Your task to perform on an android device: toggle notifications settings in the gmail app Image 0: 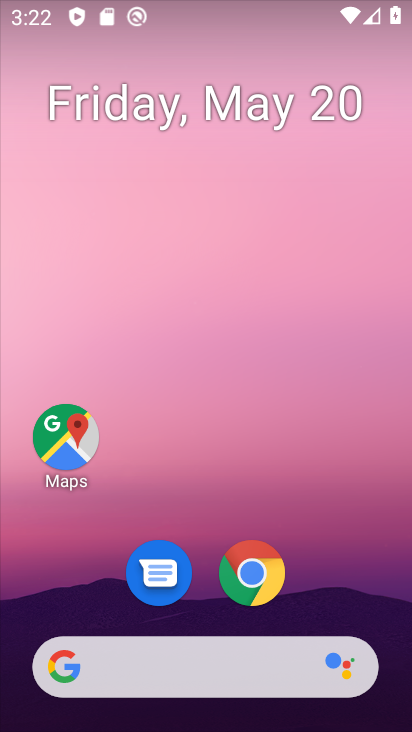
Step 0: drag from (222, 458) to (217, 144)
Your task to perform on an android device: toggle notifications settings in the gmail app Image 1: 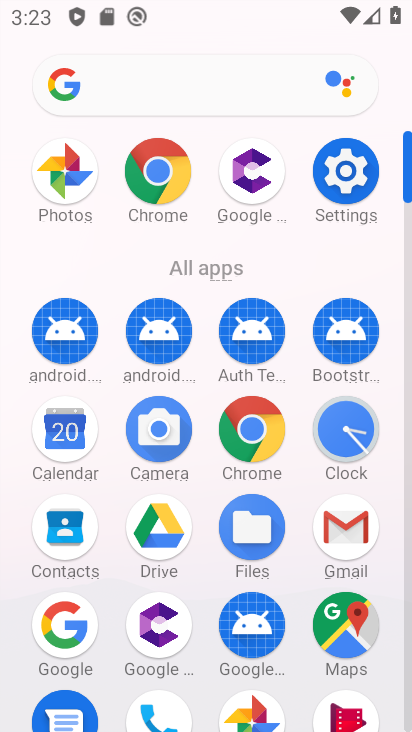
Step 1: click (338, 536)
Your task to perform on an android device: toggle notifications settings in the gmail app Image 2: 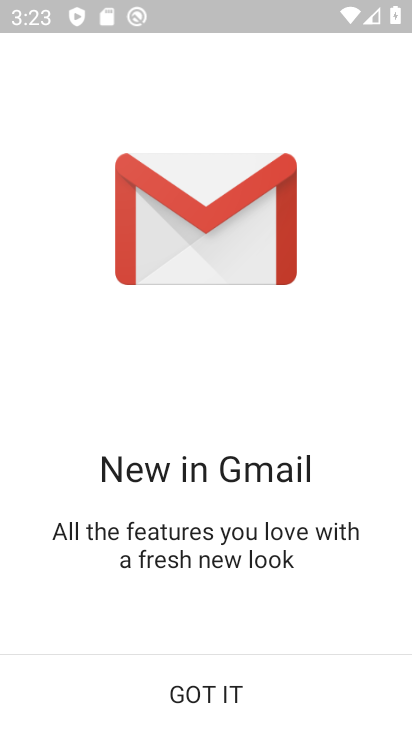
Step 2: click (215, 708)
Your task to perform on an android device: toggle notifications settings in the gmail app Image 3: 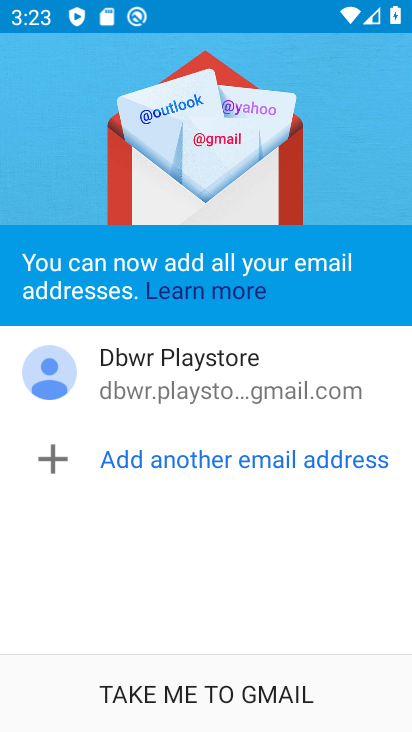
Step 3: click (226, 690)
Your task to perform on an android device: toggle notifications settings in the gmail app Image 4: 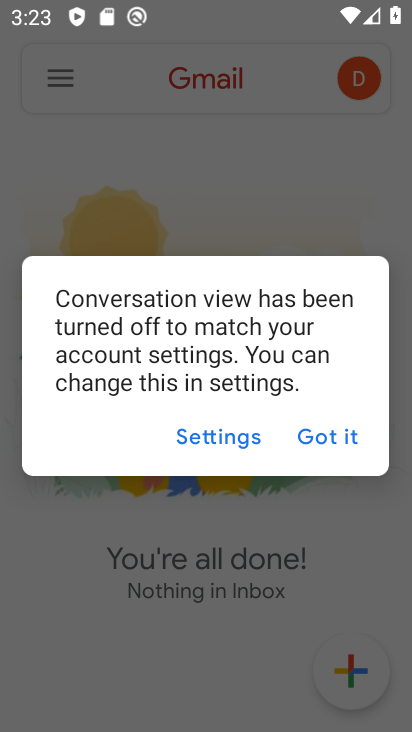
Step 4: click (339, 441)
Your task to perform on an android device: toggle notifications settings in the gmail app Image 5: 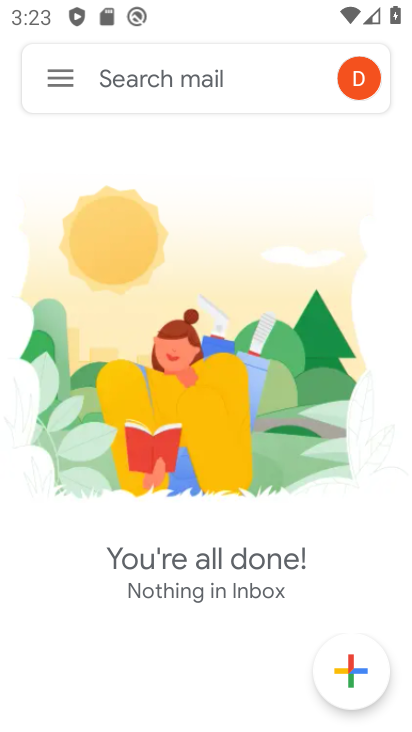
Step 5: click (51, 70)
Your task to perform on an android device: toggle notifications settings in the gmail app Image 6: 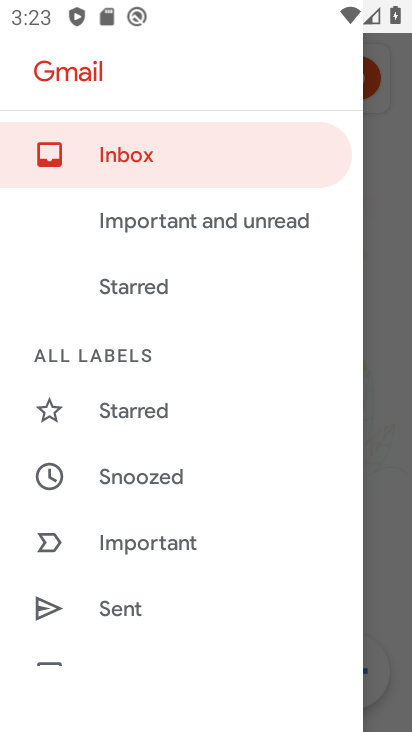
Step 6: drag from (181, 641) to (228, 292)
Your task to perform on an android device: toggle notifications settings in the gmail app Image 7: 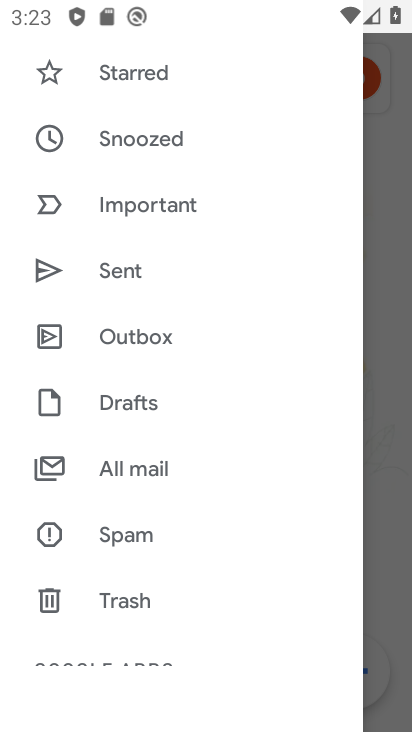
Step 7: drag from (222, 663) to (262, 322)
Your task to perform on an android device: toggle notifications settings in the gmail app Image 8: 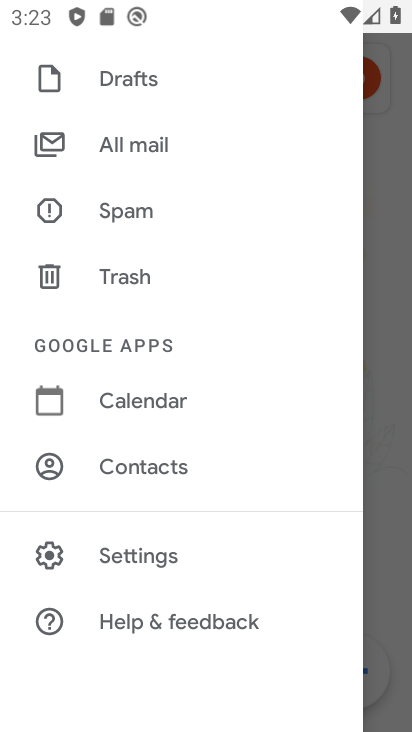
Step 8: click (134, 549)
Your task to perform on an android device: toggle notifications settings in the gmail app Image 9: 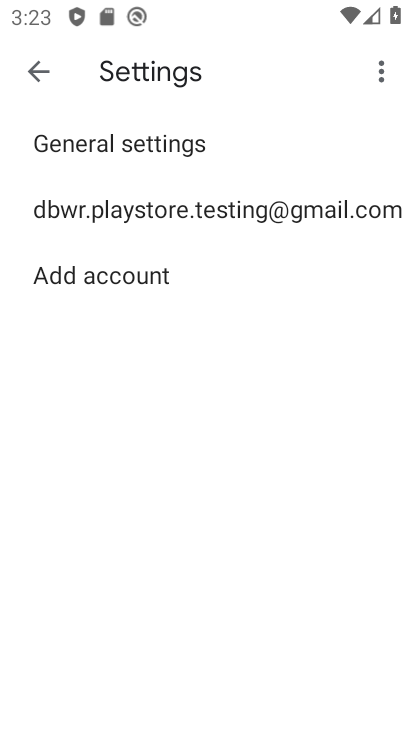
Step 9: click (193, 196)
Your task to perform on an android device: toggle notifications settings in the gmail app Image 10: 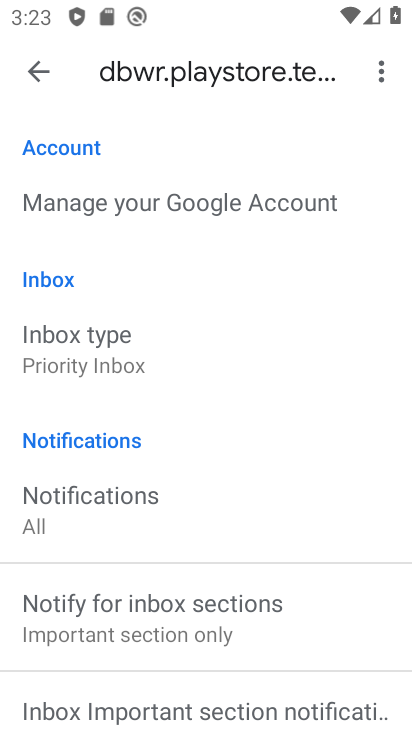
Step 10: click (136, 499)
Your task to perform on an android device: toggle notifications settings in the gmail app Image 11: 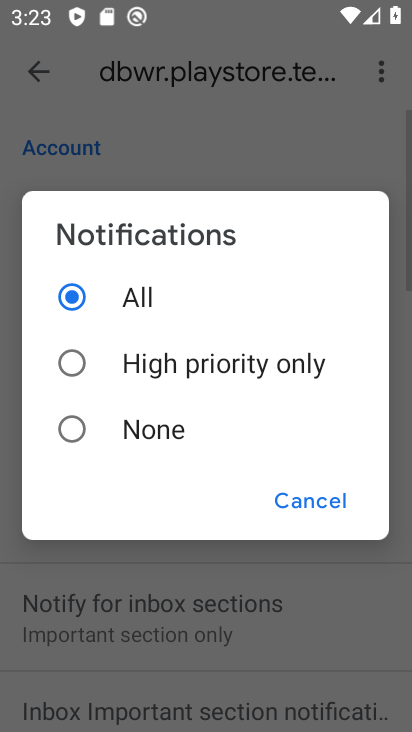
Step 11: click (145, 424)
Your task to perform on an android device: toggle notifications settings in the gmail app Image 12: 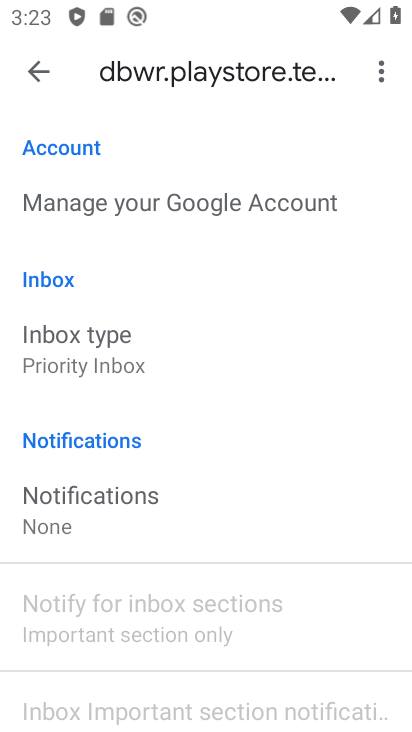
Step 12: task complete